Your task to perform on an android device: change the clock display to digital Image 0: 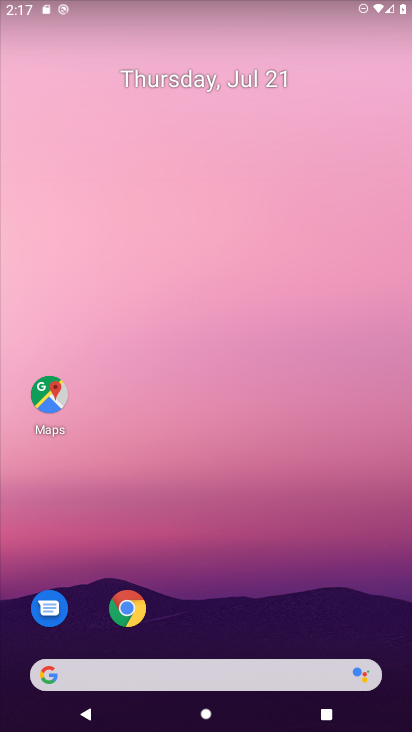
Step 0: drag from (174, 610) to (195, 204)
Your task to perform on an android device: change the clock display to digital Image 1: 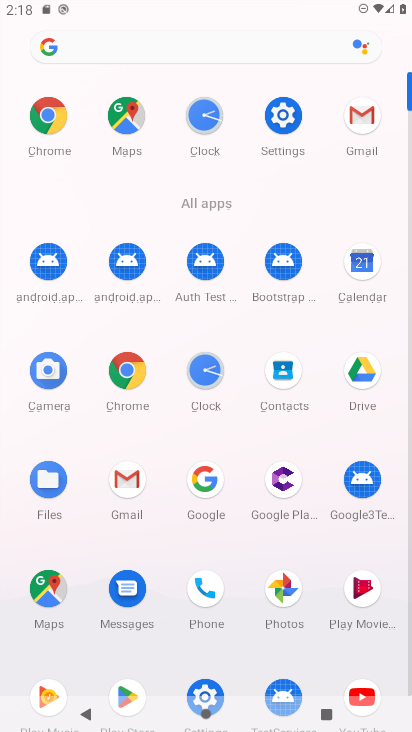
Step 1: click (203, 127)
Your task to perform on an android device: change the clock display to digital Image 2: 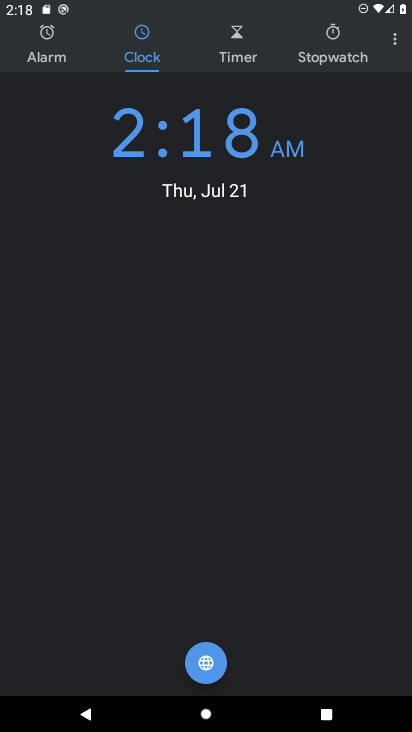
Step 2: click (403, 42)
Your task to perform on an android device: change the clock display to digital Image 3: 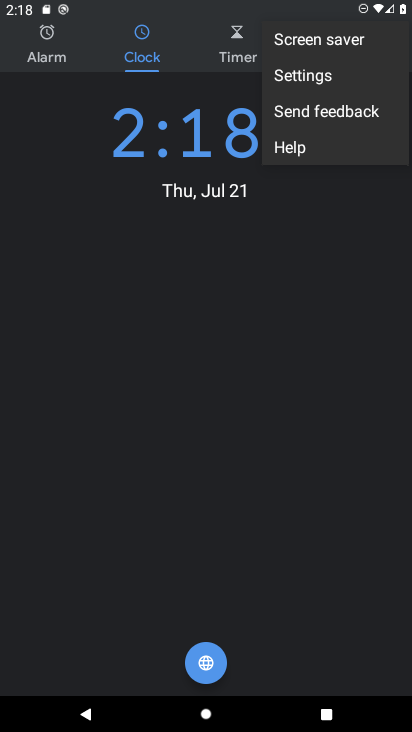
Step 3: click (355, 73)
Your task to perform on an android device: change the clock display to digital Image 4: 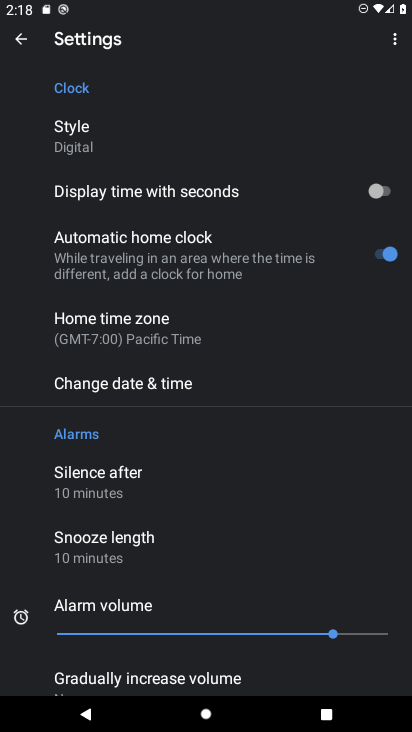
Step 4: task complete